Your task to perform on an android device: change notification settings in the gmail app Image 0: 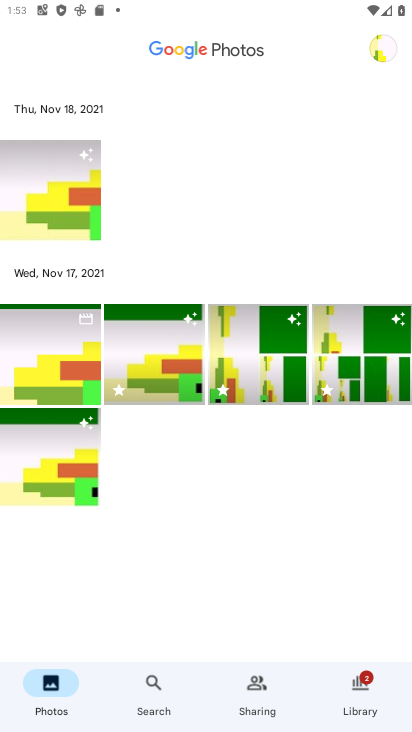
Step 0: press home button
Your task to perform on an android device: change notification settings in the gmail app Image 1: 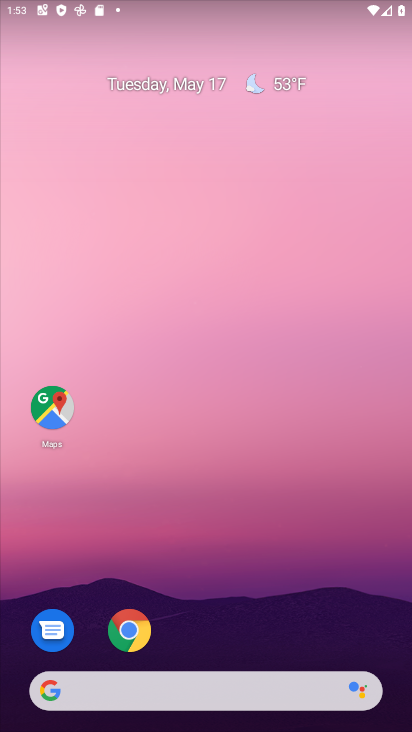
Step 1: drag from (207, 652) to (282, 211)
Your task to perform on an android device: change notification settings in the gmail app Image 2: 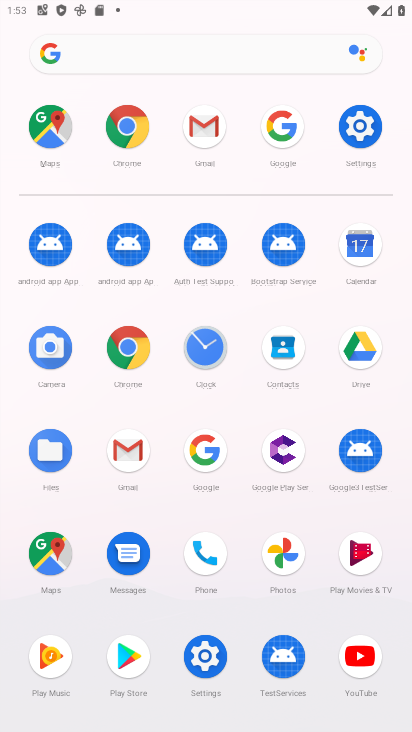
Step 2: click (121, 462)
Your task to perform on an android device: change notification settings in the gmail app Image 3: 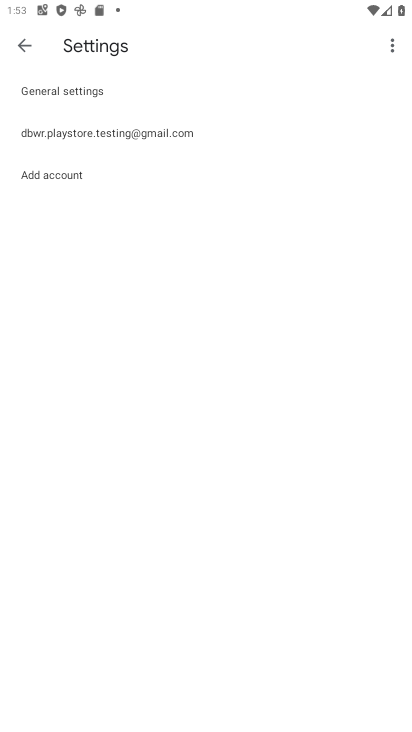
Step 3: click (107, 94)
Your task to perform on an android device: change notification settings in the gmail app Image 4: 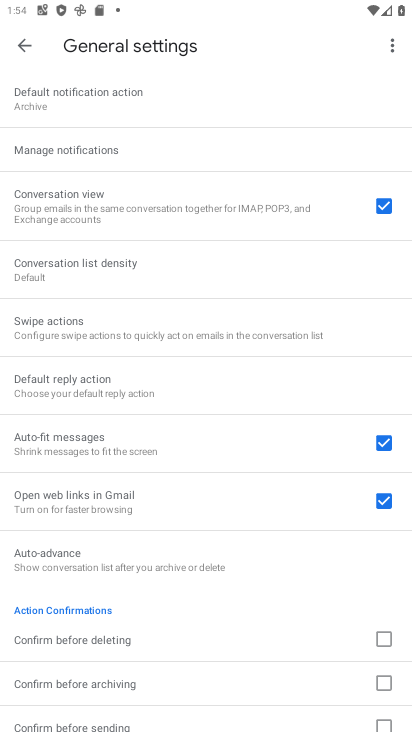
Step 4: click (108, 148)
Your task to perform on an android device: change notification settings in the gmail app Image 5: 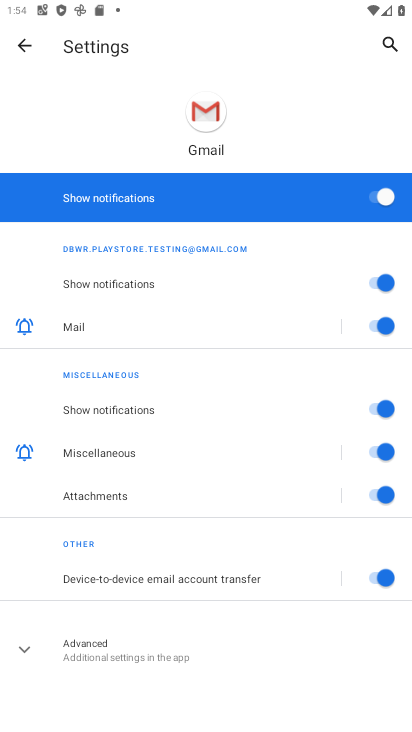
Step 5: click (370, 206)
Your task to perform on an android device: change notification settings in the gmail app Image 6: 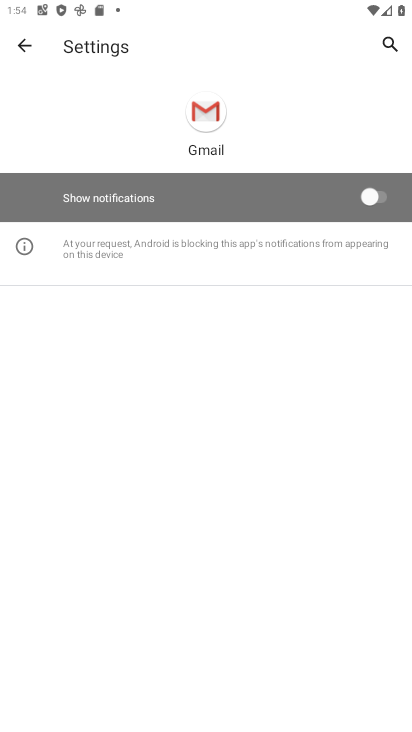
Step 6: task complete